Your task to perform on an android device: Set the phone to "Do not disturb". Image 0: 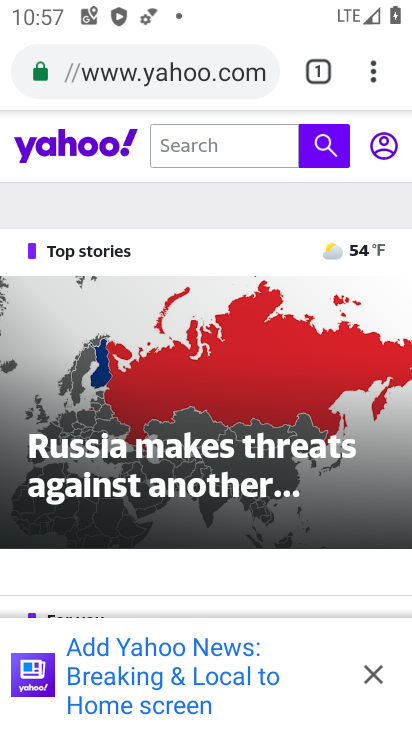
Step 0: press home button
Your task to perform on an android device: Set the phone to "Do not disturb". Image 1: 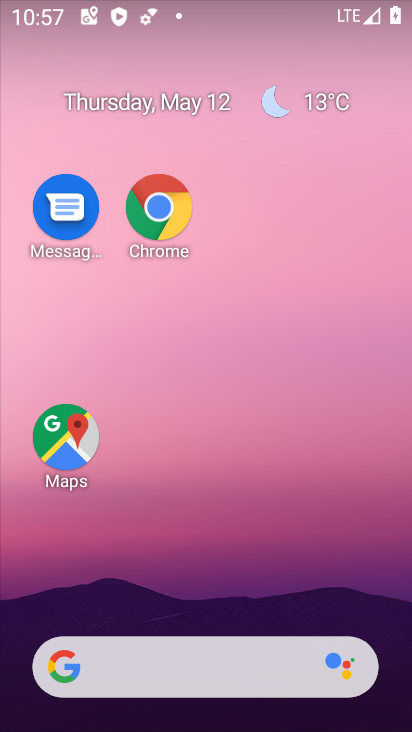
Step 1: drag from (236, 9) to (198, 657)
Your task to perform on an android device: Set the phone to "Do not disturb". Image 2: 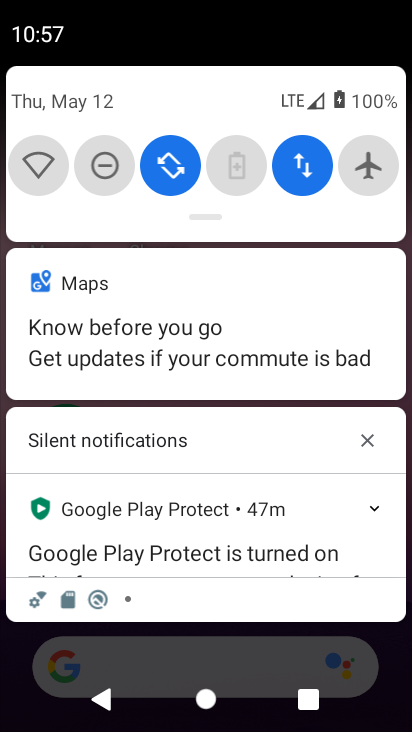
Step 2: click (88, 177)
Your task to perform on an android device: Set the phone to "Do not disturb". Image 3: 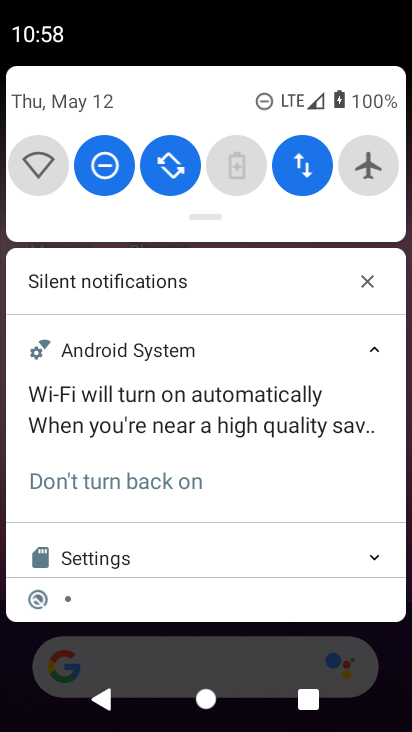
Step 3: task complete